Your task to perform on an android device: open app "File Manager" (install if not already installed) Image 0: 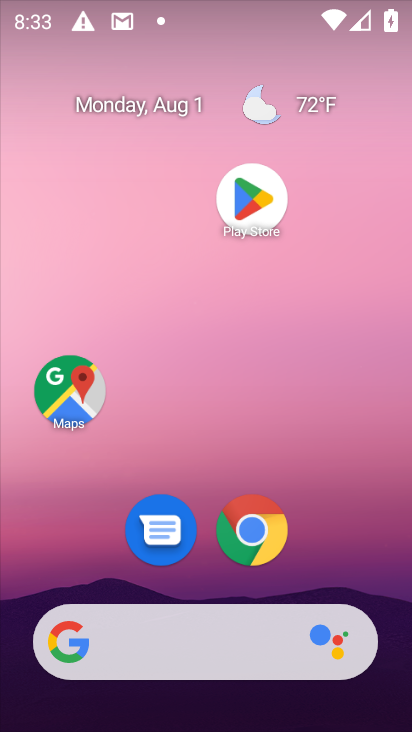
Step 0: drag from (124, 706) to (140, 135)
Your task to perform on an android device: open app "File Manager" (install if not already installed) Image 1: 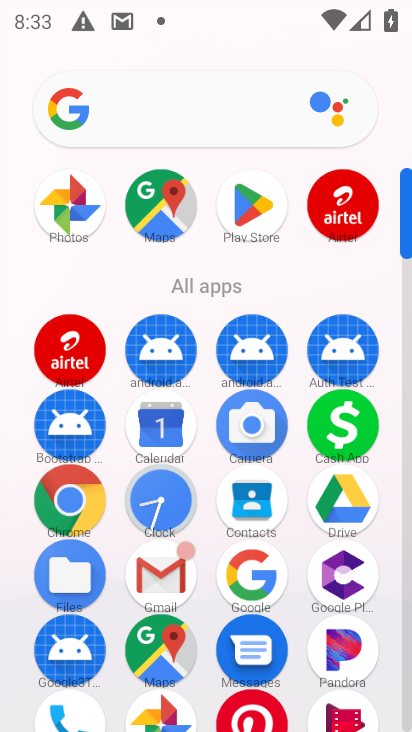
Step 1: click (244, 199)
Your task to perform on an android device: open app "File Manager" (install if not already installed) Image 2: 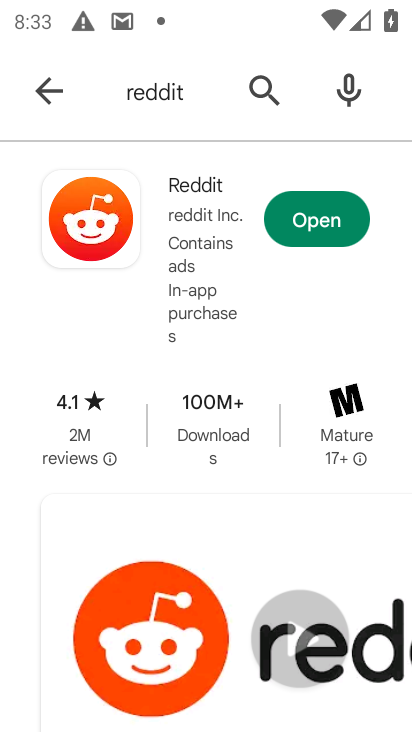
Step 2: click (261, 80)
Your task to perform on an android device: open app "File Manager" (install if not already installed) Image 3: 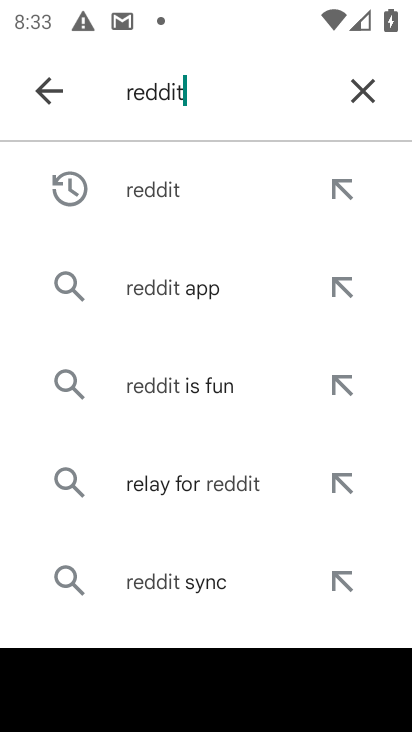
Step 3: click (364, 83)
Your task to perform on an android device: open app "File Manager" (install if not already installed) Image 4: 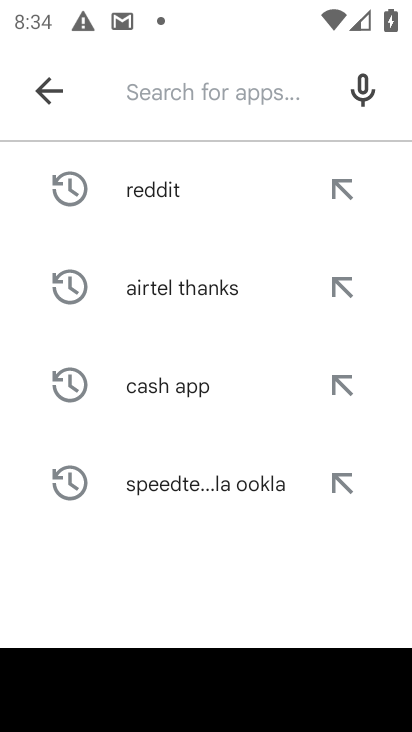
Step 4: type "file manager"
Your task to perform on an android device: open app "File Manager" (install if not already installed) Image 5: 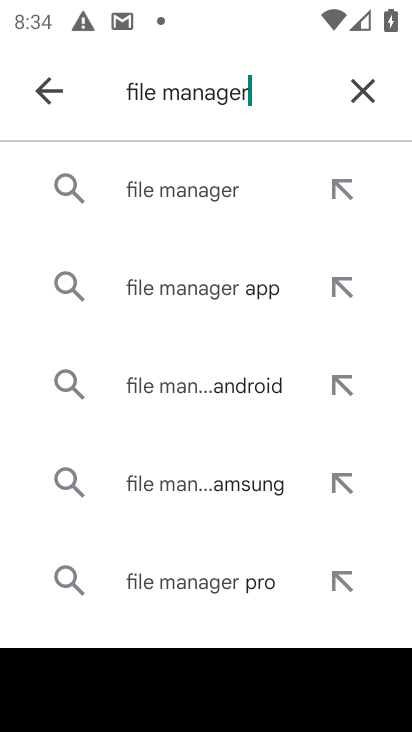
Step 5: click (164, 188)
Your task to perform on an android device: open app "File Manager" (install if not already installed) Image 6: 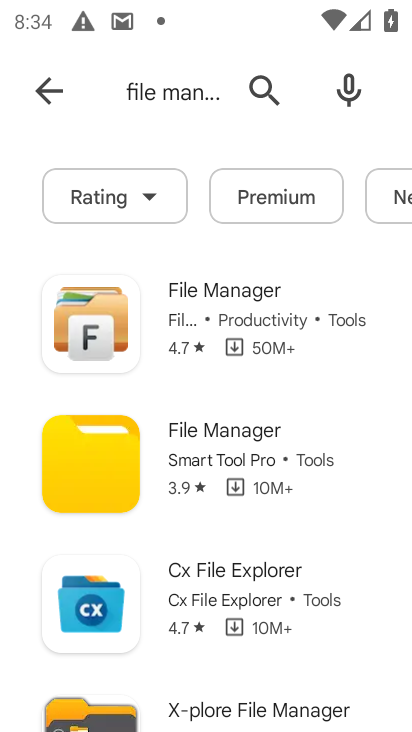
Step 6: click (132, 313)
Your task to perform on an android device: open app "File Manager" (install if not already installed) Image 7: 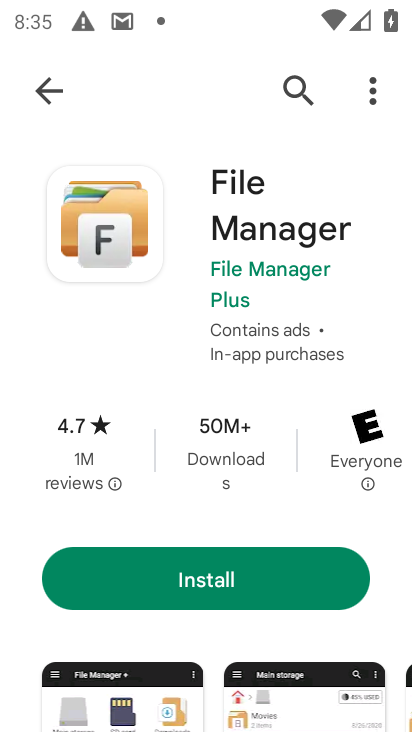
Step 7: click (255, 584)
Your task to perform on an android device: open app "File Manager" (install if not already installed) Image 8: 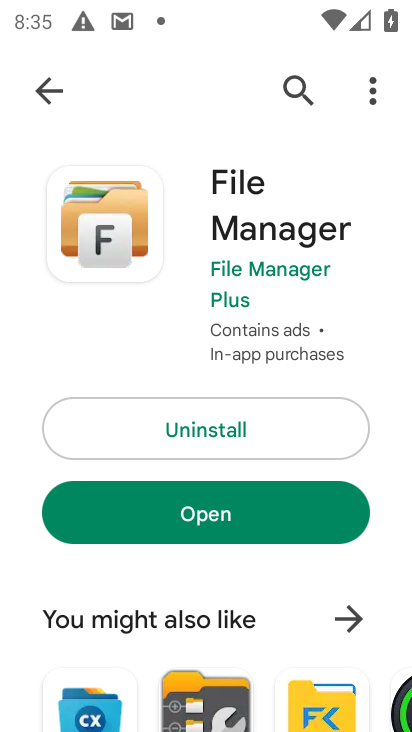
Step 8: click (261, 535)
Your task to perform on an android device: open app "File Manager" (install if not already installed) Image 9: 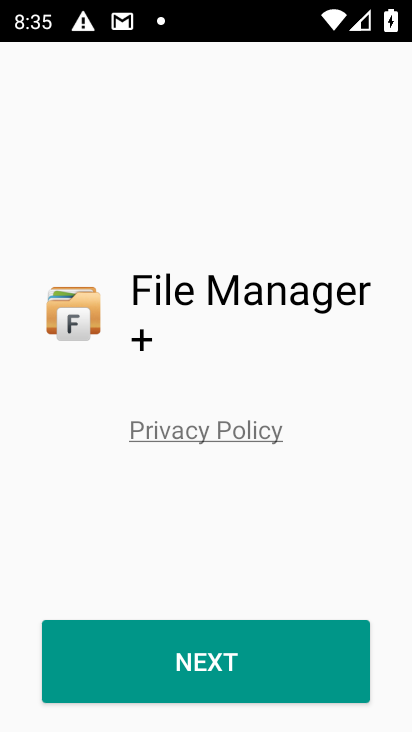
Step 9: task complete